Your task to perform on an android device: check battery use Image 0: 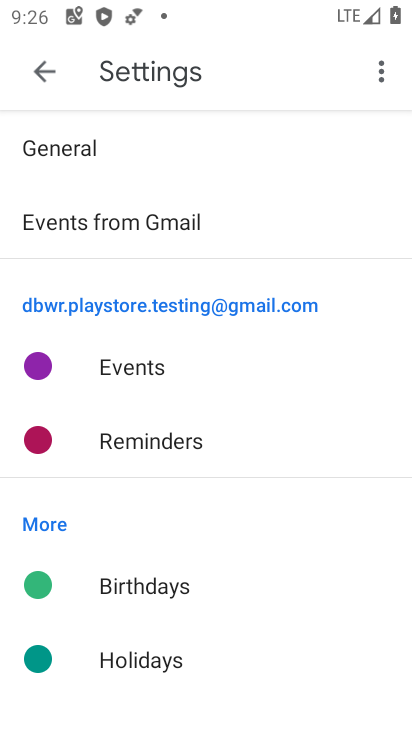
Step 0: press home button
Your task to perform on an android device: check battery use Image 1: 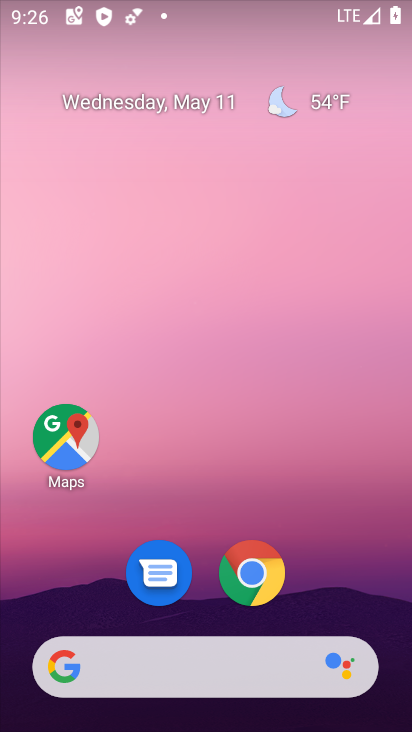
Step 1: drag from (212, 638) to (310, 117)
Your task to perform on an android device: check battery use Image 2: 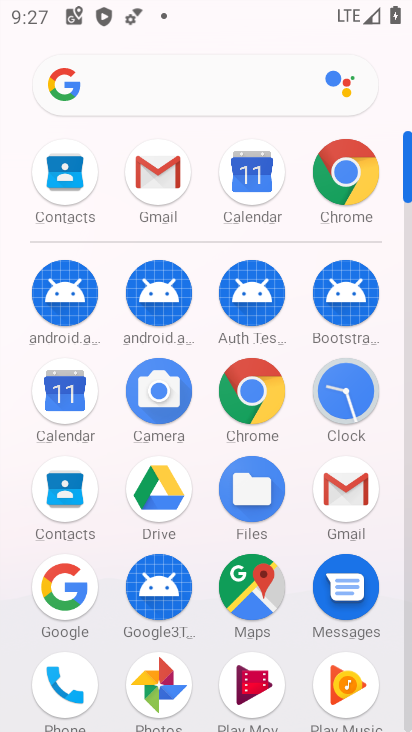
Step 2: drag from (269, 618) to (307, 211)
Your task to perform on an android device: check battery use Image 3: 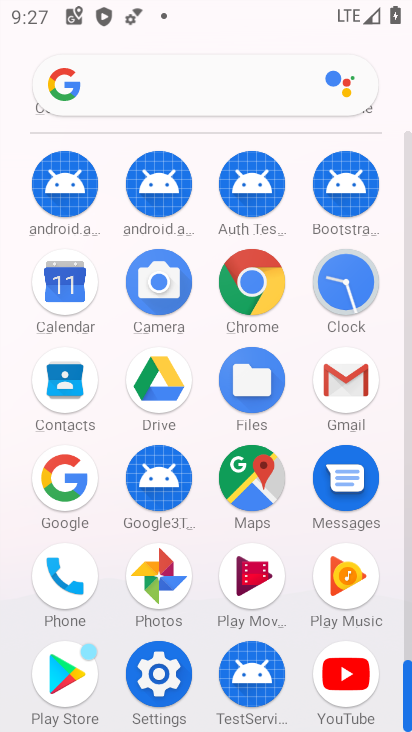
Step 3: click (166, 659)
Your task to perform on an android device: check battery use Image 4: 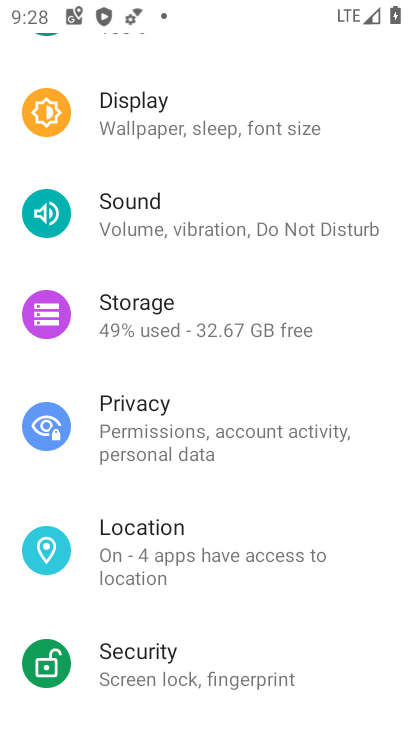
Step 4: drag from (217, 284) to (199, 716)
Your task to perform on an android device: check battery use Image 5: 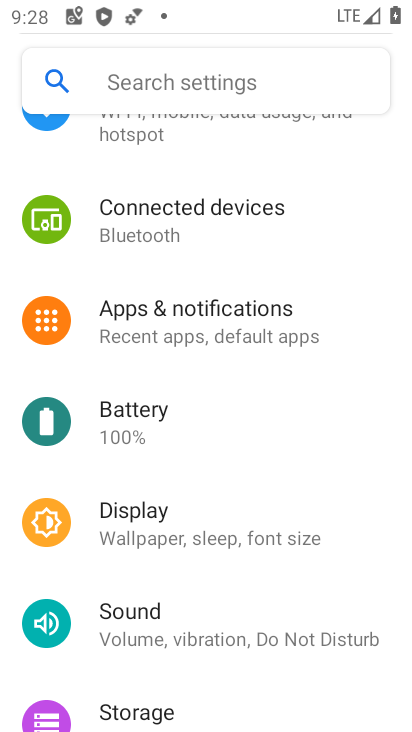
Step 5: drag from (242, 268) to (242, 730)
Your task to perform on an android device: check battery use Image 6: 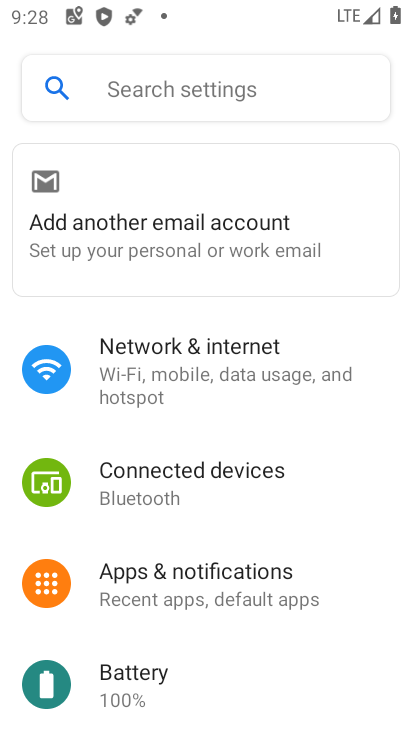
Step 6: click (164, 677)
Your task to perform on an android device: check battery use Image 7: 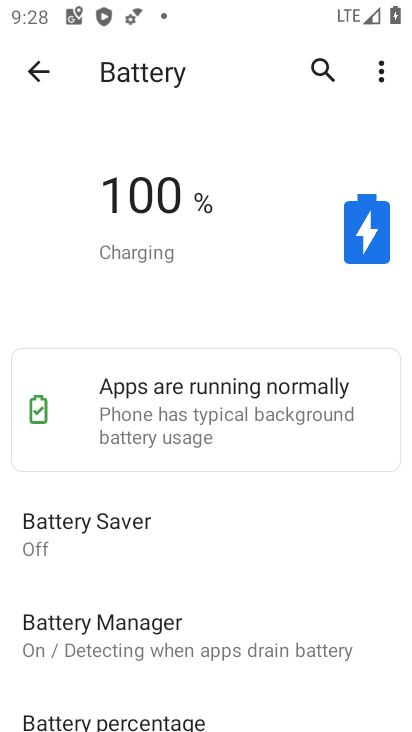
Step 7: task complete